Your task to perform on an android device: change notifications settings Image 0: 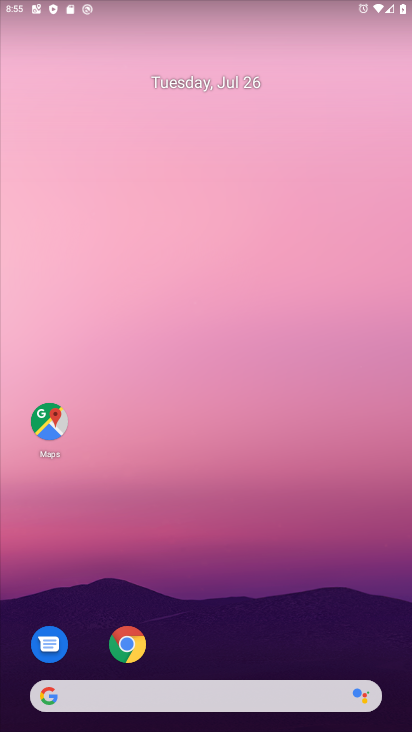
Step 0: drag from (171, 248) to (237, 270)
Your task to perform on an android device: change notifications settings Image 1: 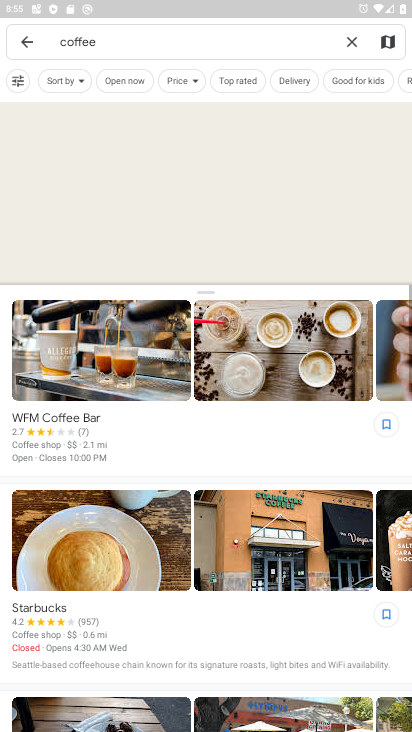
Step 1: press home button
Your task to perform on an android device: change notifications settings Image 2: 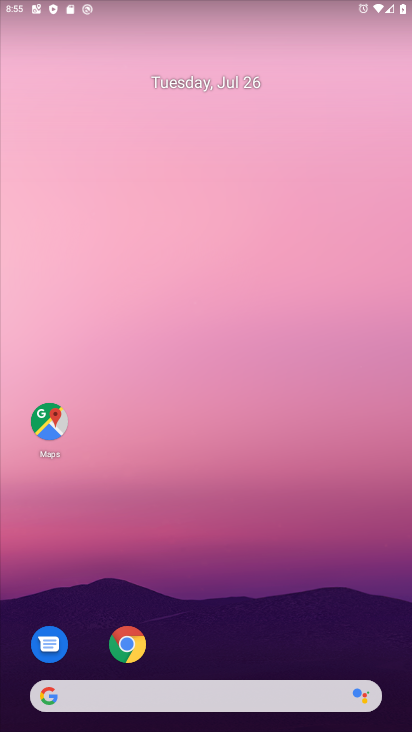
Step 2: drag from (219, 671) to (238, 222)
Your task to perform on an android device: change notifications settings Image 3: 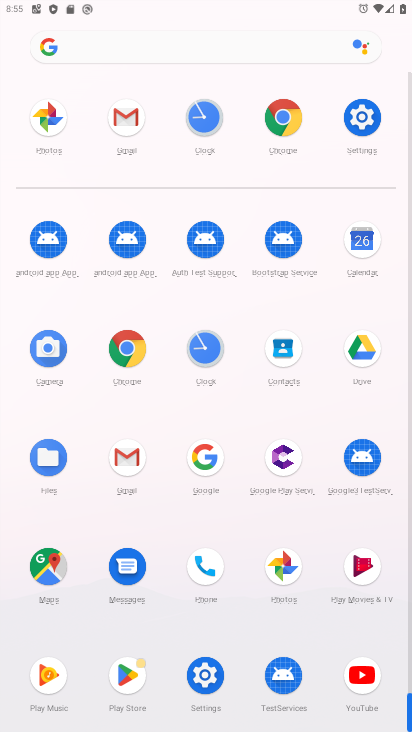
Step 3: click (373, 109)
Your task to perform on an android device: change notifications settings Image 4: 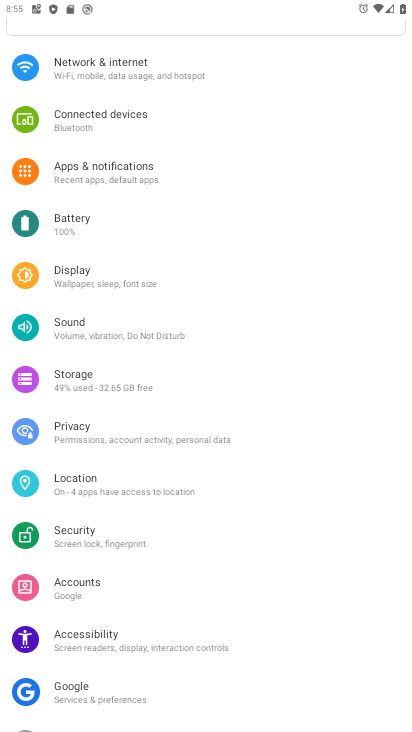
Step 4: click (129, 161)
Your task to perform on an android device: change notifications settings Image 5: 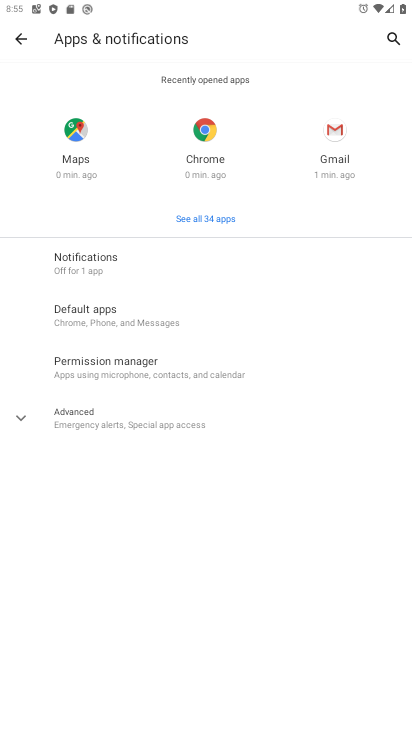
Step 5: click (136, 258)
Your task to perform on an android device: change notifications settings Image 6: 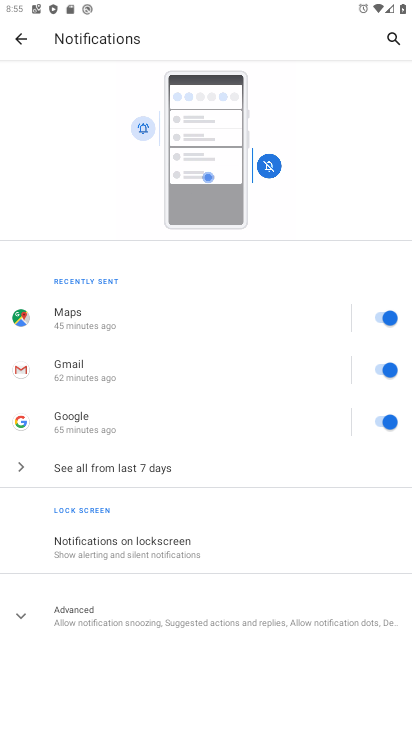
Step 6: click (146, 470)
Your task to perform on an android device: change notifications settings Image 7: 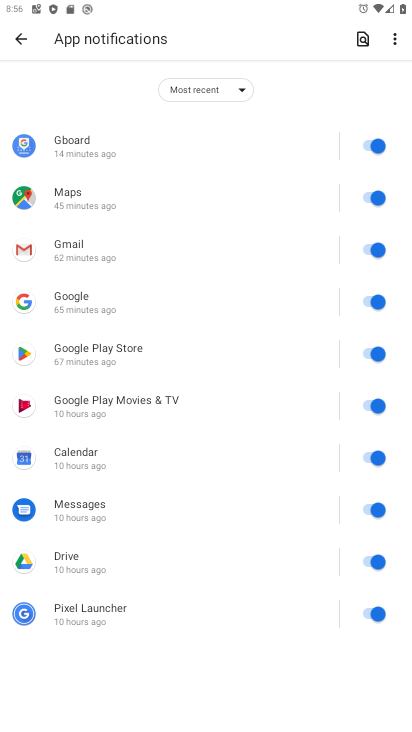
Step 7: click (364, 147)
Your task to perform on an android device: change notifications settings Image 8: 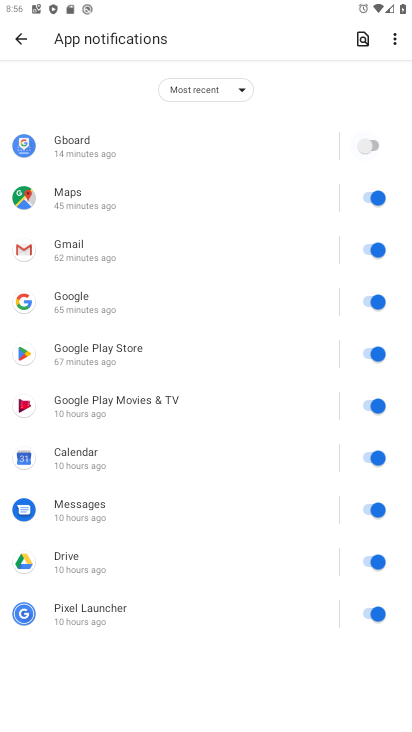
Step 8: click (364, 201)
Your task to perform on an android device: change notifications settings Image 9: 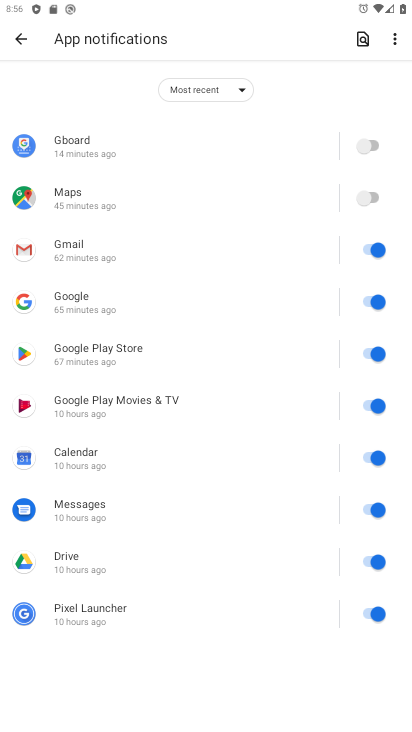
Step 9: click (366, 246)
Your task to perform on an android device: change notifications settings Image 10: 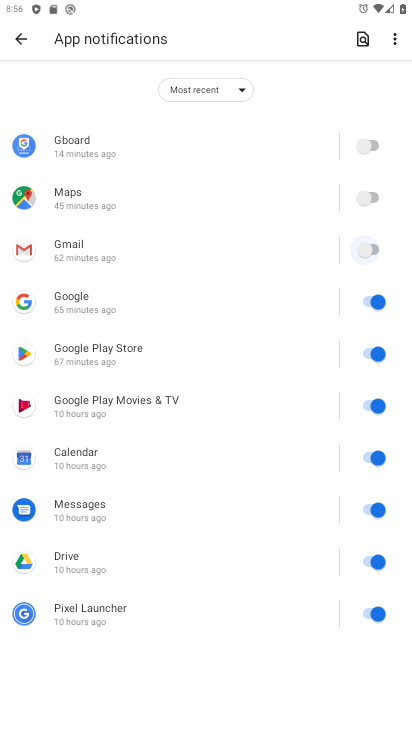
Step 10: click (364, 304)
Your task to perform on an android device: change notifications settings Image 11: 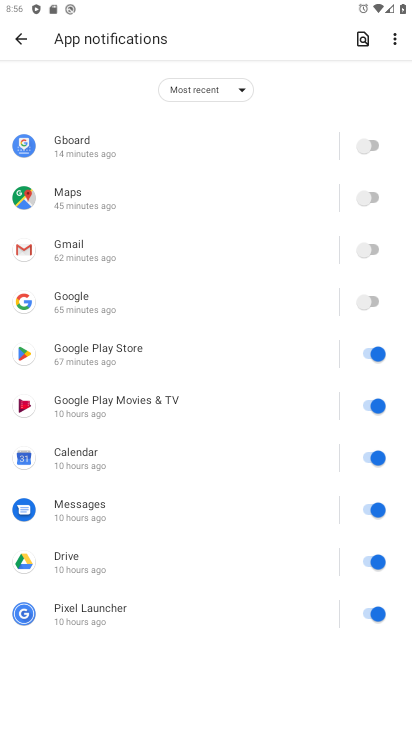
Step 11: click (368, 340)
Your task to perform on an android device: change notifications settings Image 12: 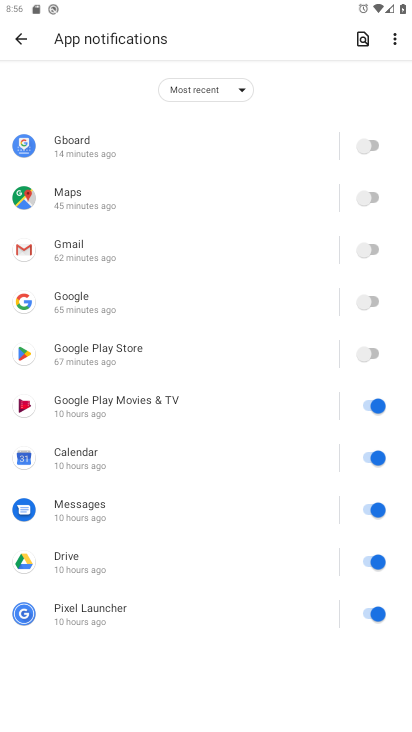
Step 12: click (374, 401)
Your task to perform on an android device: change notifications settings Image 13: 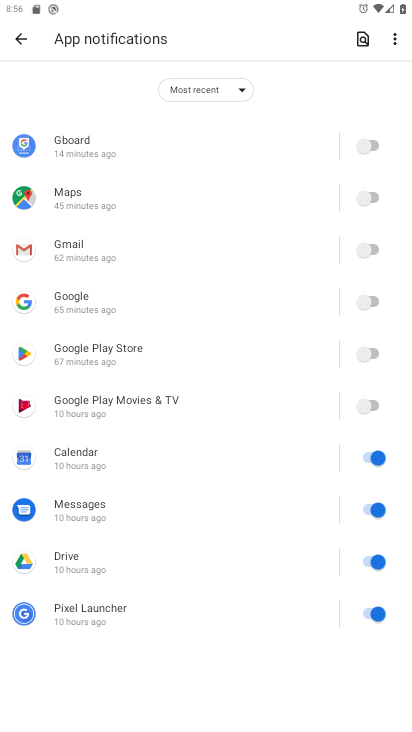
Step 13: click (372, 455)
Your task to perform on an android device: change notifications settings Image 14: 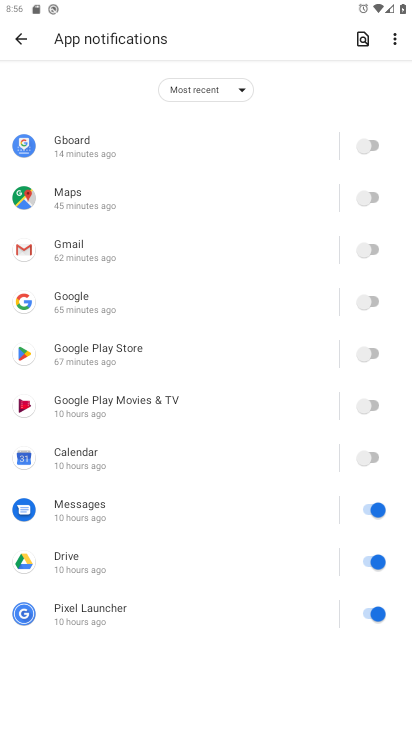
Step 14: click (372, 508)
Your task to perform on an android device: change notifications settings Image 15: 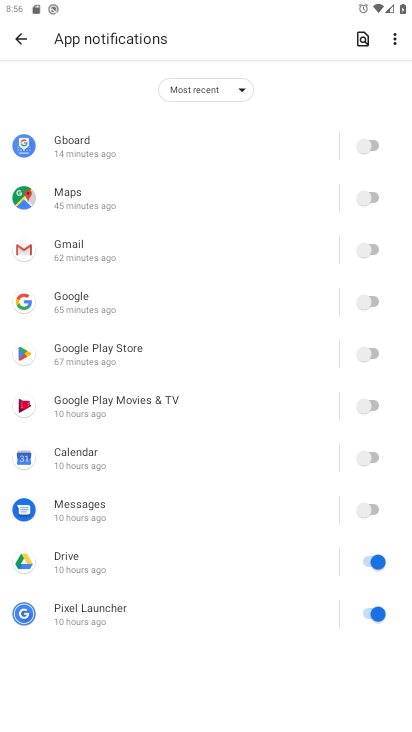
Step 15: click (374, 556)
Your task to perform on an android device: change notifications settings Image 16: 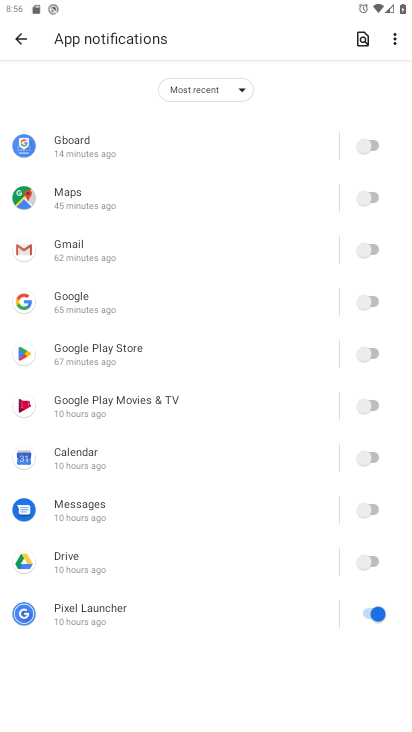
Step 16: click (374, 608)
Your task to perform on an android device: change notifications settings Image 17: 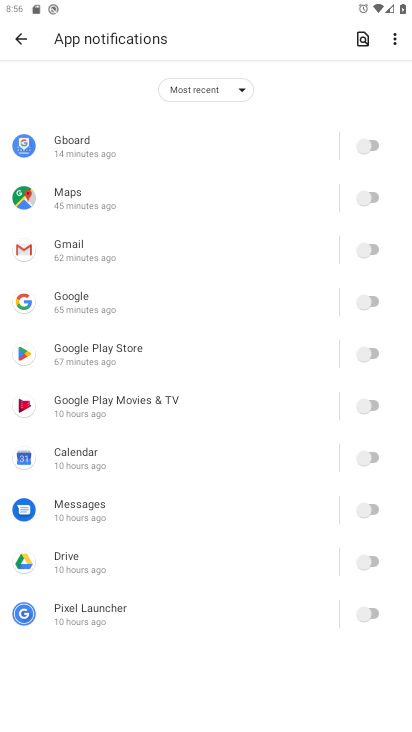
Step 17: task complete